Your task to perform on an android device: Open calendar and show me the third week of next month Image 0: 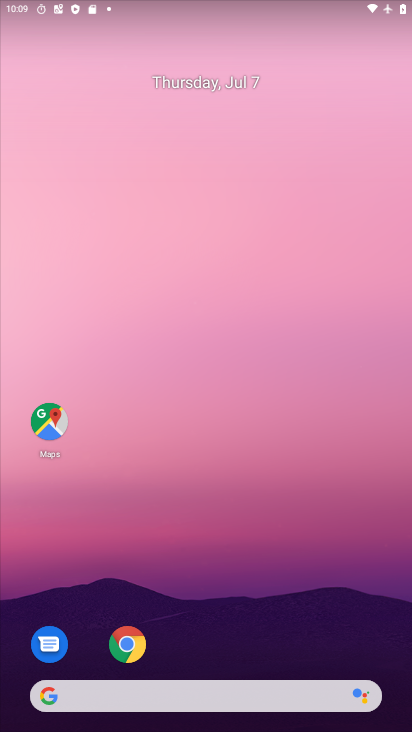
Step 0: drag from (292, 631) to (272, 74)
Your task to perform on an android device: Open calendar and show me the third week of next month Image 1: 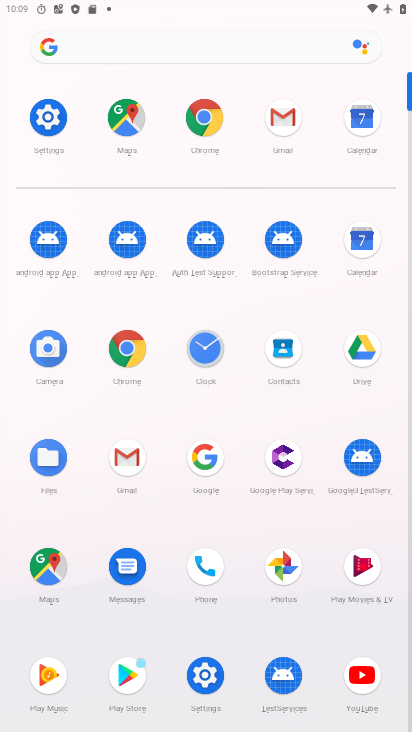
Step 1: click (367, 244)
Your task to perform on an android device: Open calendar and show me the third week of next month Image 2: 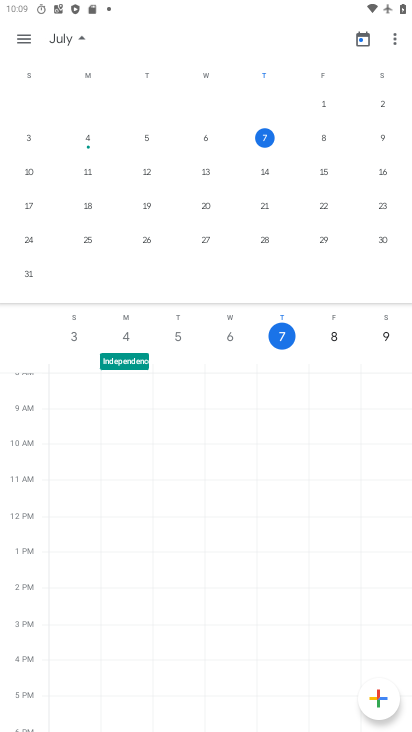
Step 2: drag from (373, 184) to (12, 180)
Your task to perform on an android device: Open calendar and show me the third week of next month Image 3: 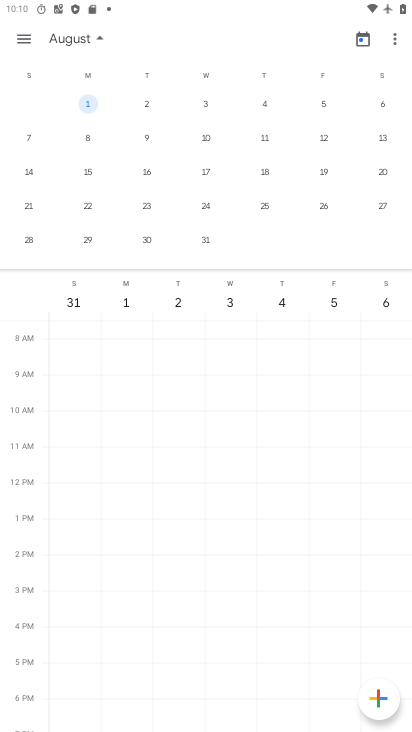
Step 3: click (33, 175)
Your task to perform on an android device: Open calendar and show me the third week of next month Image 4: 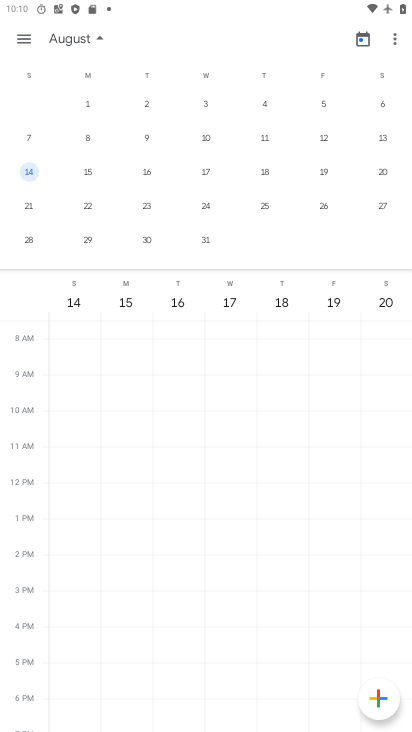
Step 4: task complete